Your task to perform on an android device: turn on translation in the chrome app Image 0: 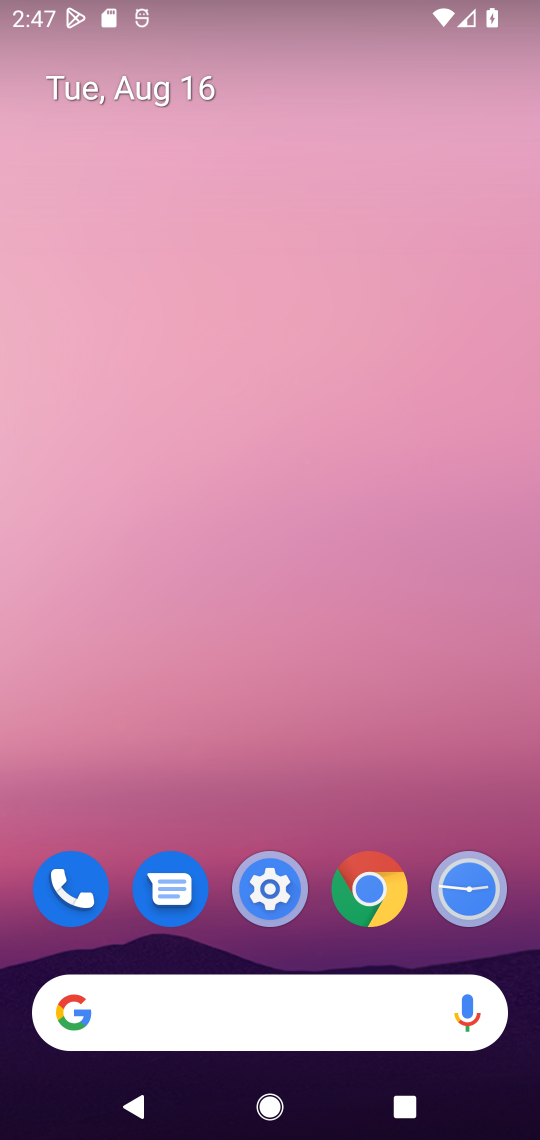
Step 0: click (372, 893)
Your task to perform on an android device: turn on translation in the chrome app Image 1: 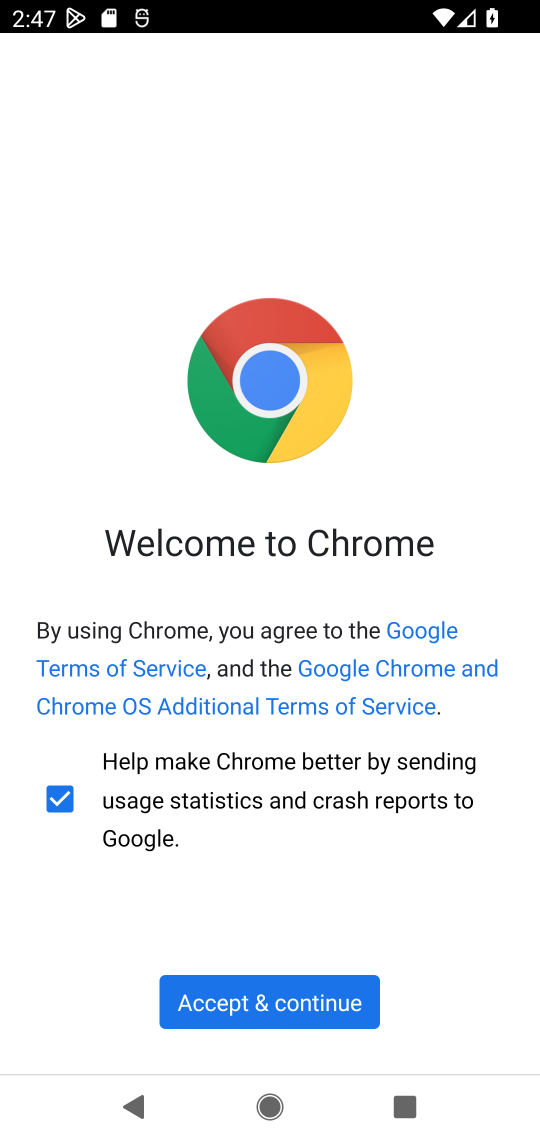
Step 1: click (276, 1011)
Your task to perform on an android device: turn on translation in the chrome app Image 2: 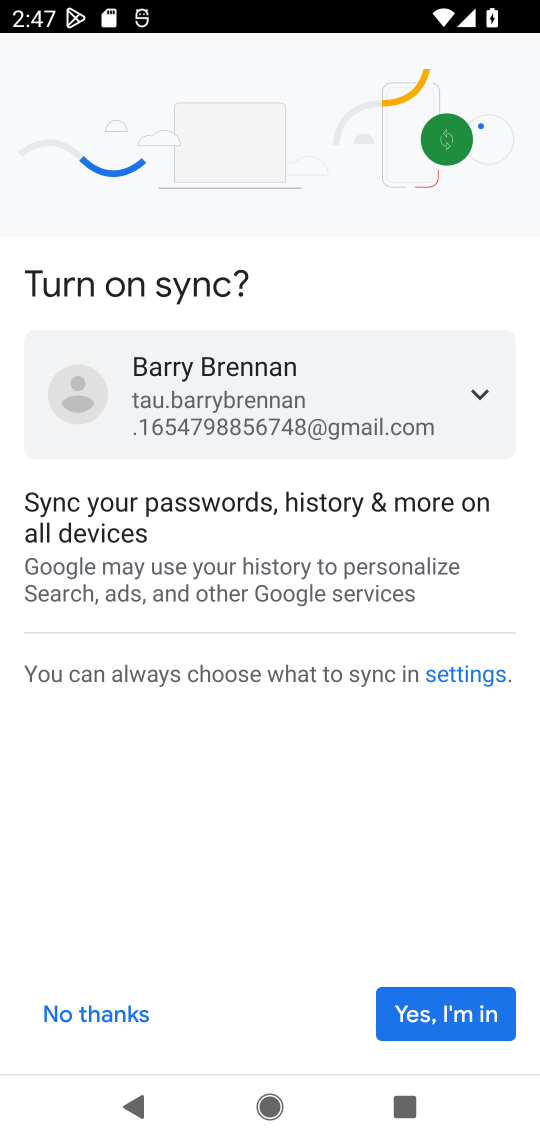
Step 2: click (121, 1015)
Your task to perform on an android device: turn on translation in the chrome app Image 3: 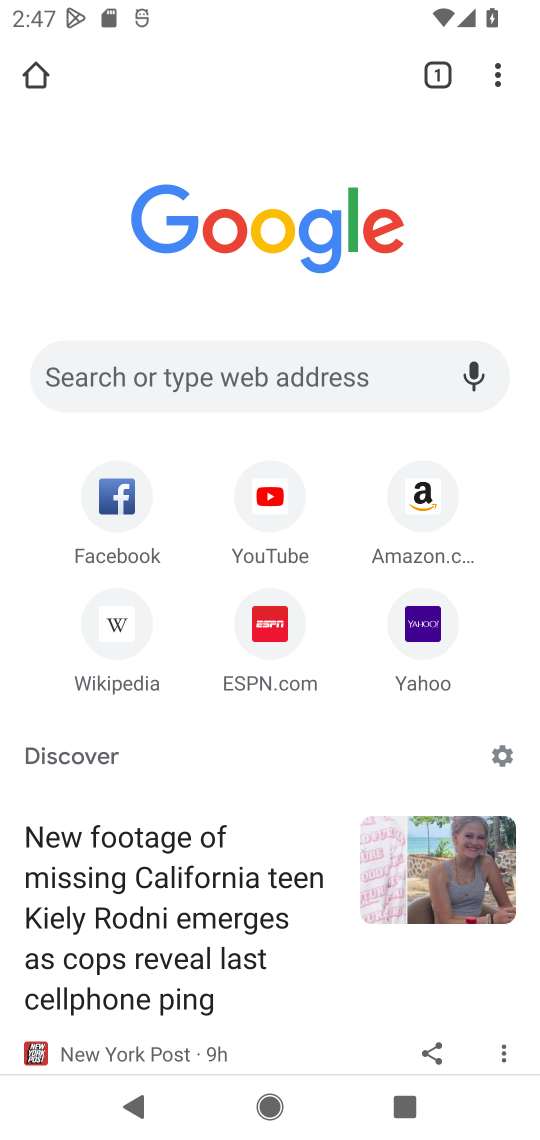
Step 3: task complete